Your task to perform on an android device: open a bookmark in the chrome app Image 0: 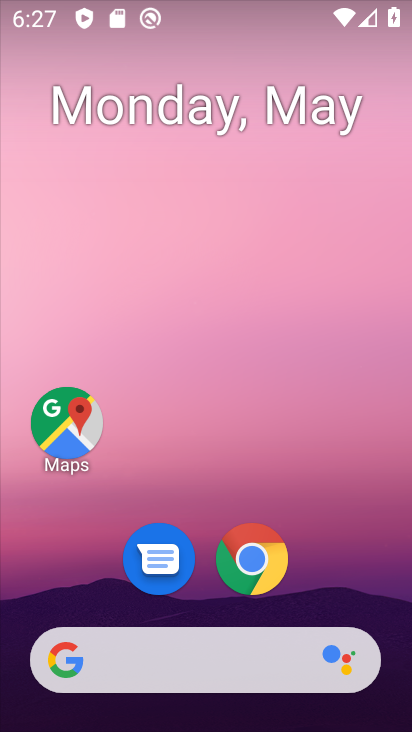
Step 0: drag from (384, 638) to (299, 78)
Your task to perform on an android device: open a bookmark in the chrome app Image 1: 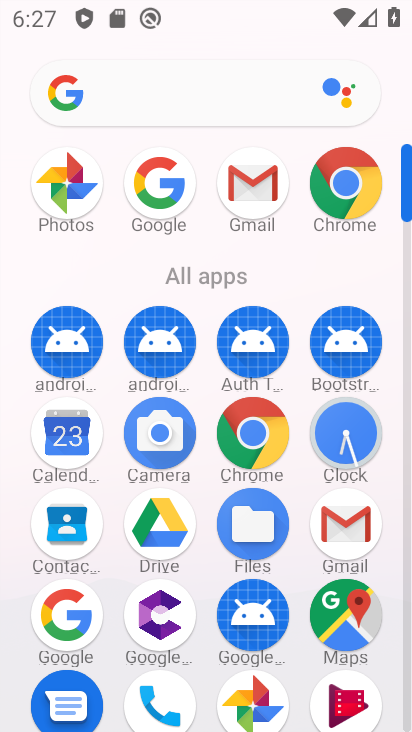
Step 1: click (336, 183)
Your task to perform on an android device: open a bookmark in the chrome app Image 2: 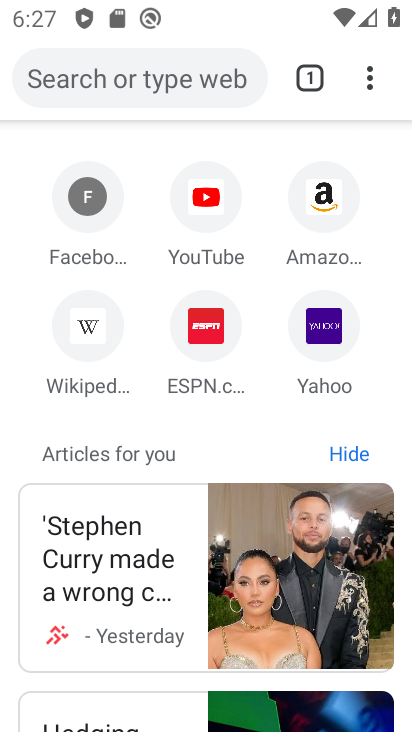
Step 2: click (366, 85)
Your task to perform on an android device: open a bookmark in the chrome app Image 3: 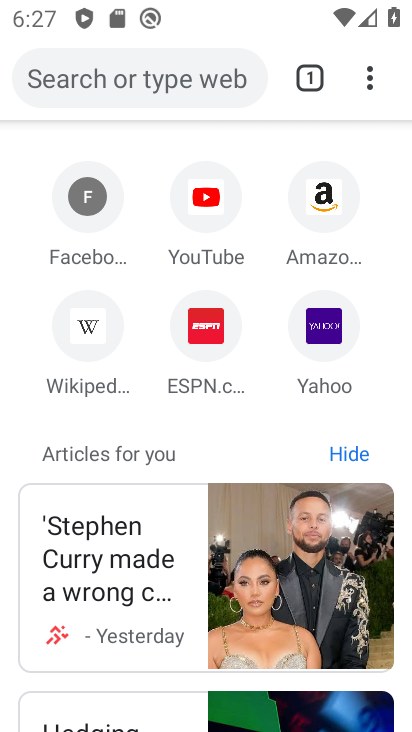
Step 3: click (373, 74)
Your task to perform on an android device: open a bookmark in the chrome app Image 4: 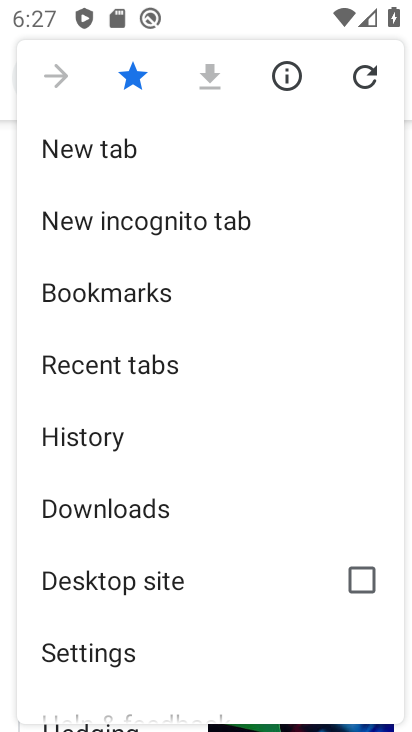
Step 4: click (157, 311)
Your task to perform on an android device: open a bookmark in the chrome app Image 5: 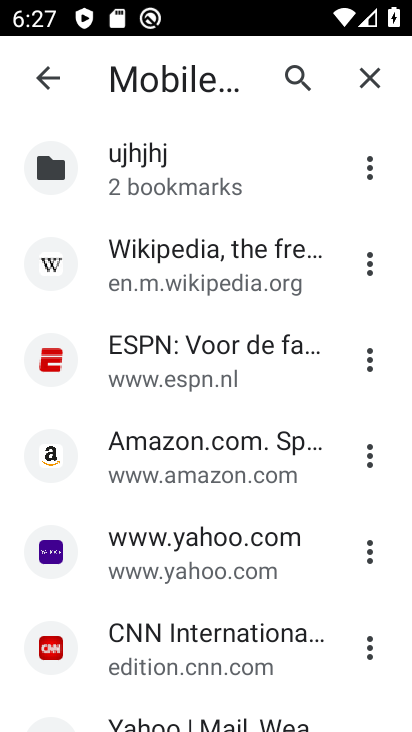
Step 5: task complete